Your task to perform on an android device: Open network settings Image 0: 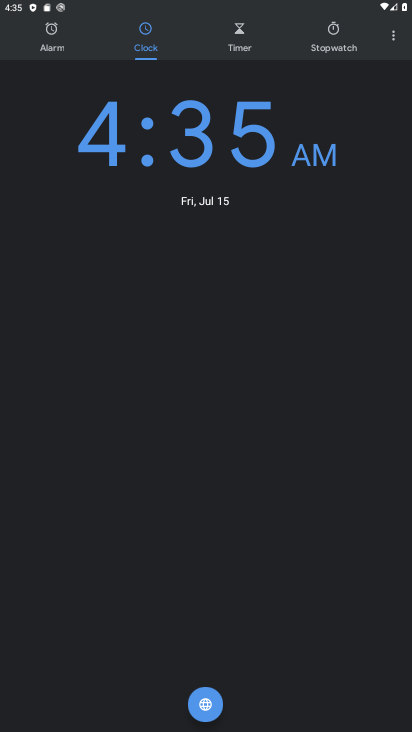
Step 0: press home button
Your task to perform on an android device: Open network settings Image 1: 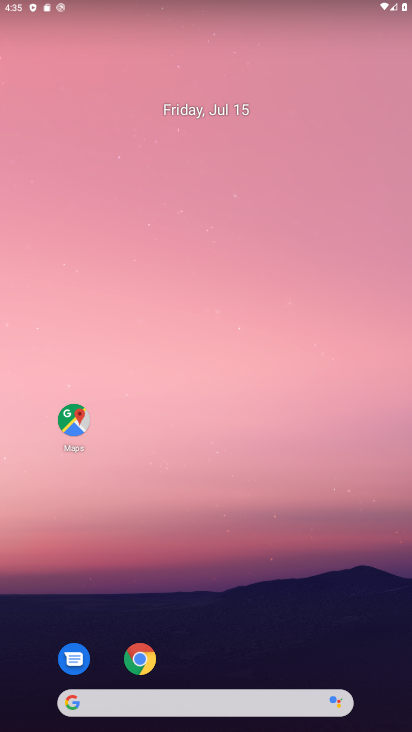
Step 1: drag from (229, 495) to (159, 117)
Your task to perform on an android device: Open network settings Image 2: 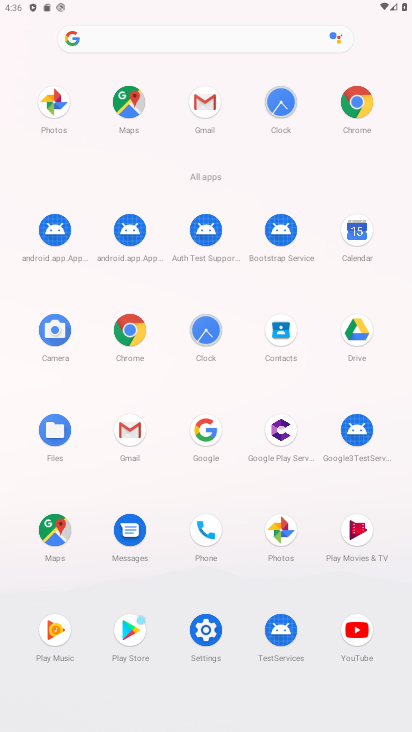
Step 2: click (199, 640)
Your task to perform on an android device: Open network settings Image 3: 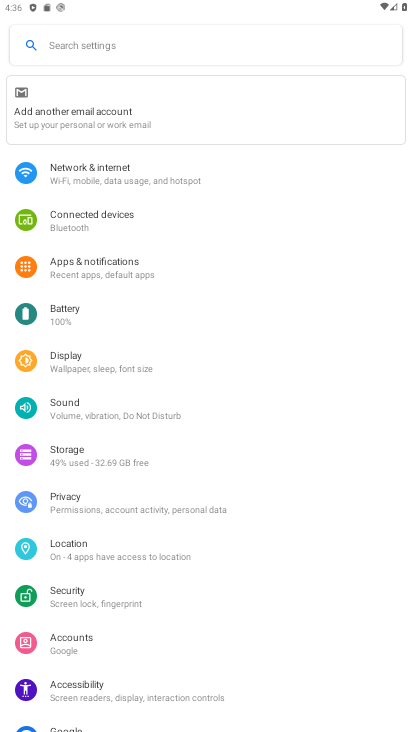
Step 3: click (54, 180)
Your task to perform on an android device: Open network settings Image 4: 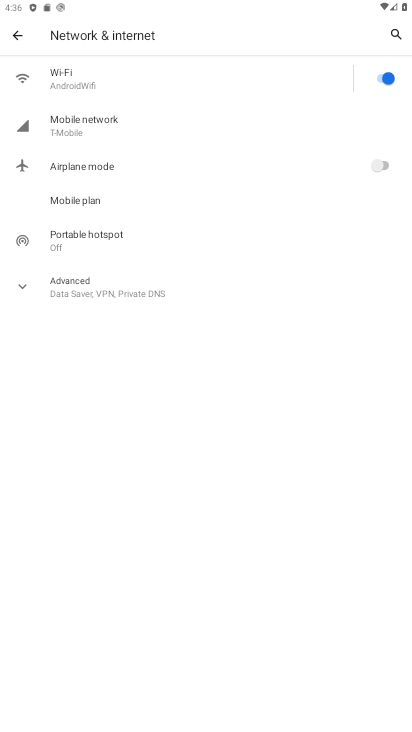
Step 4: task complete